Your task to perform on an android device: delete location history Image 0: 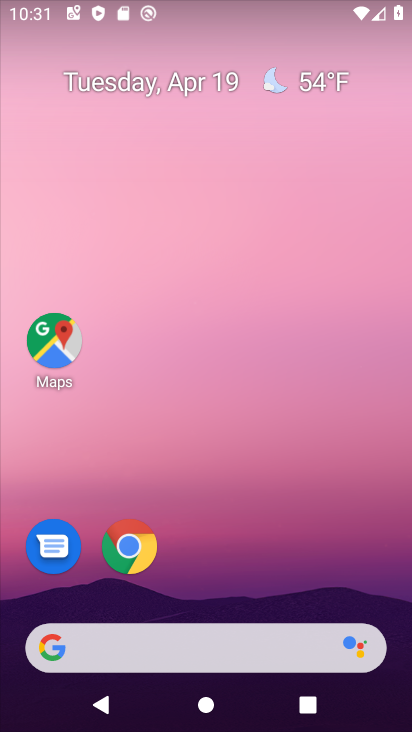
Step 0: click (273, 717)
Your task to perform on an android device: delete location history Image 1: 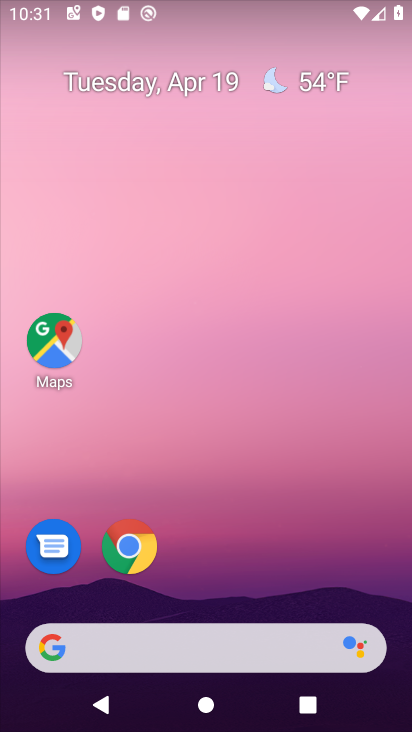
Step 1: click (47, 363)
Your task to perform on an android device: delete location history Image 2: 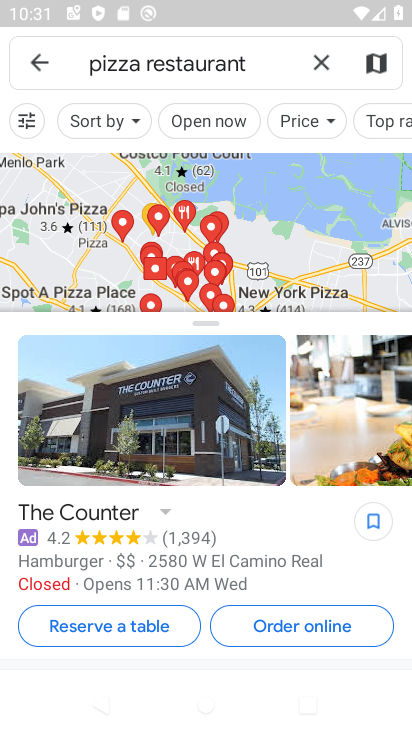
Step 2: click (29, 67)
Your task to perform on an android device: delete location history Image 3: 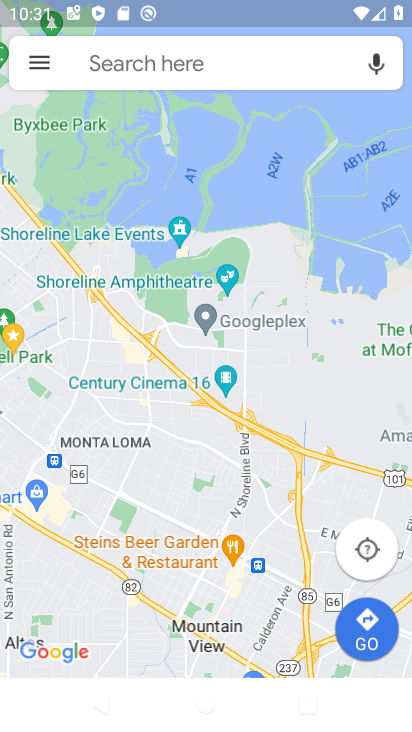
Step 3: click (39, 64)
Your task to perform on an android device: delete location history Image 4: 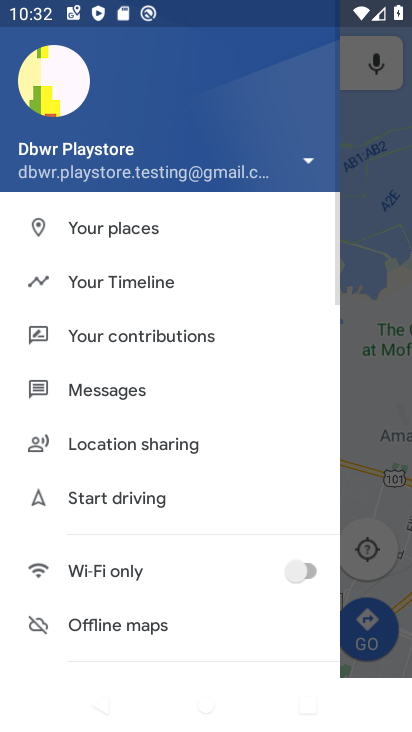
Step 4: click (159, 275)
Your task to perform on an android device: delete location history Image 5: 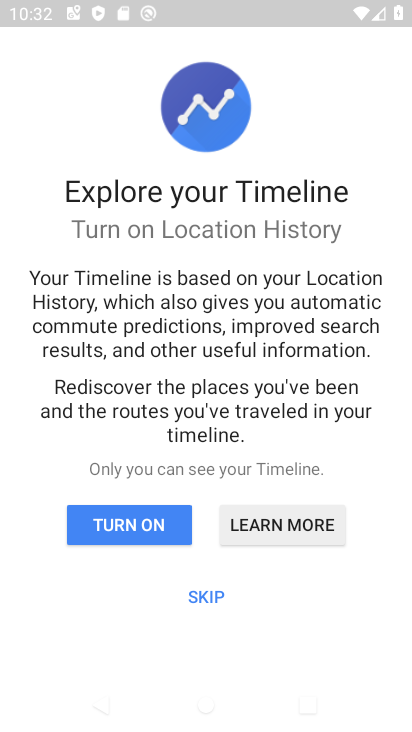
Step 5: click (201, 596)
Your task to perform on an android device: delete location history Image 6: 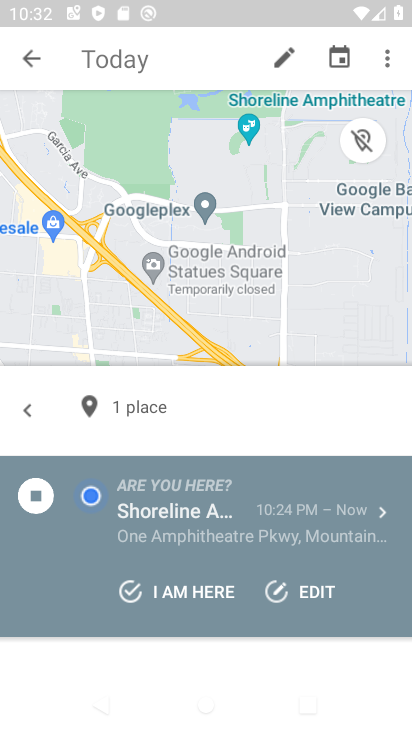
Step 6: click (383, 54)
Your task to perform on an android device: delete location history Image 7: 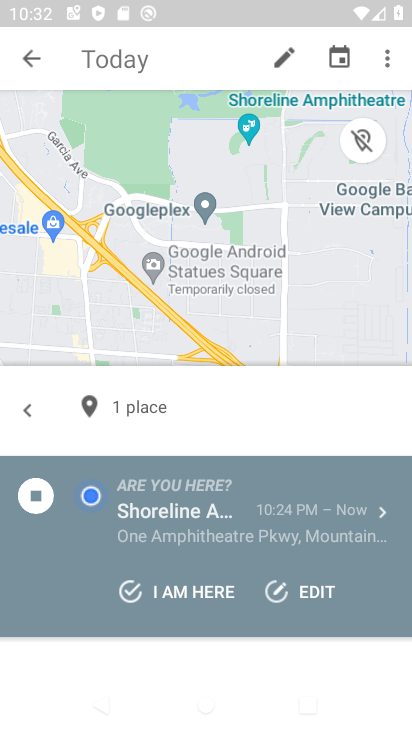
Step 7: click (391, 59)
Your task to perform on an android device: delete location history Image 8: 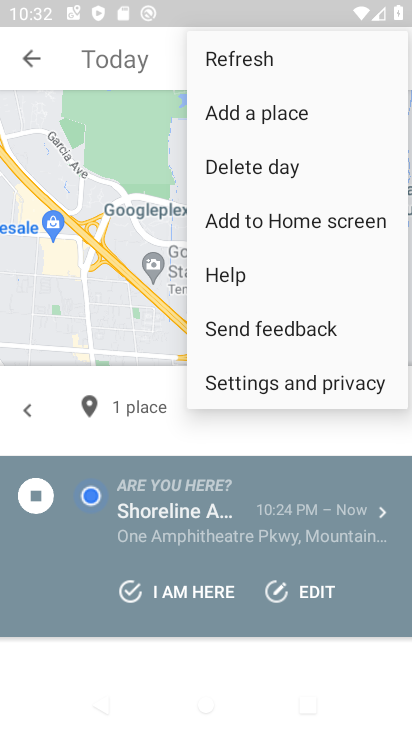
Step 8: click (264, 379)
Your task to perform on an android device: delete location history Image 9: 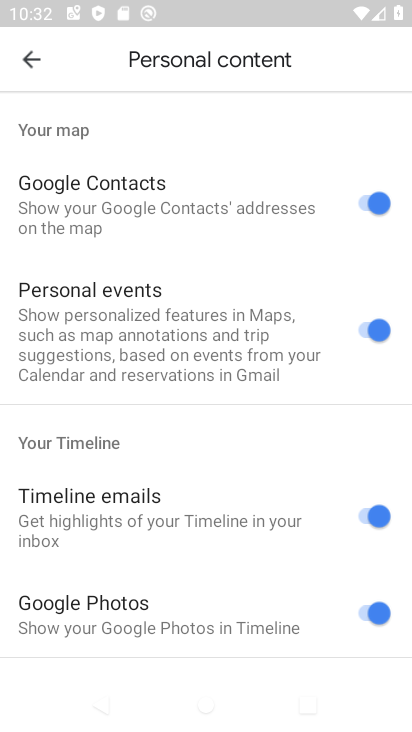
Step 9: drag from (248, 589) to (299, 73)
Your task to perform on an android device: delete location history Image 10: 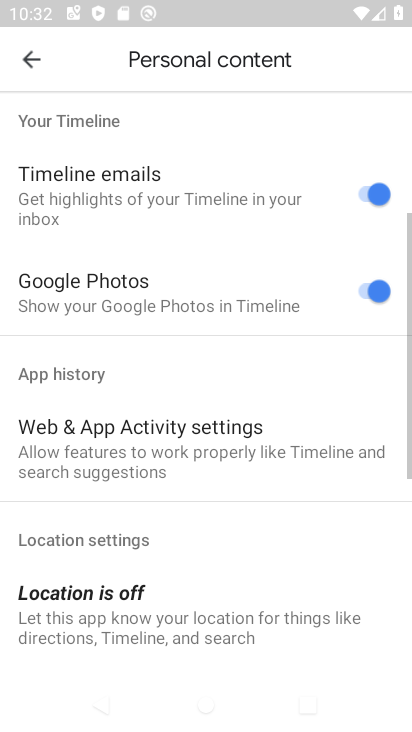
Step 10: drag from (248, 636) to (341, 13)
Your task to perform on an android device: delete location history Image 11: 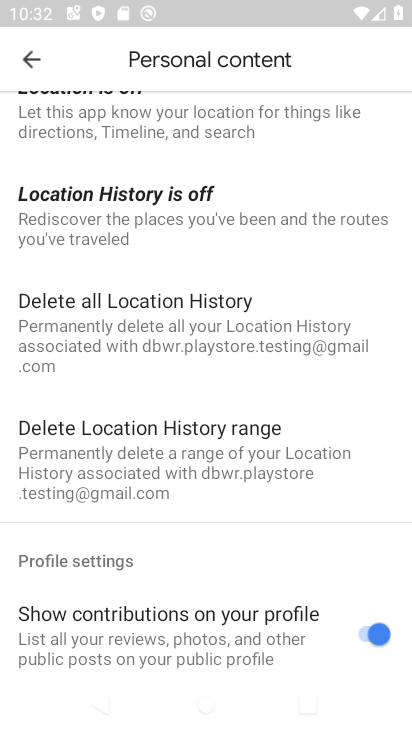
Step 11: click (254, 348)
Your task to perform on an android device: delete location history Image 12: 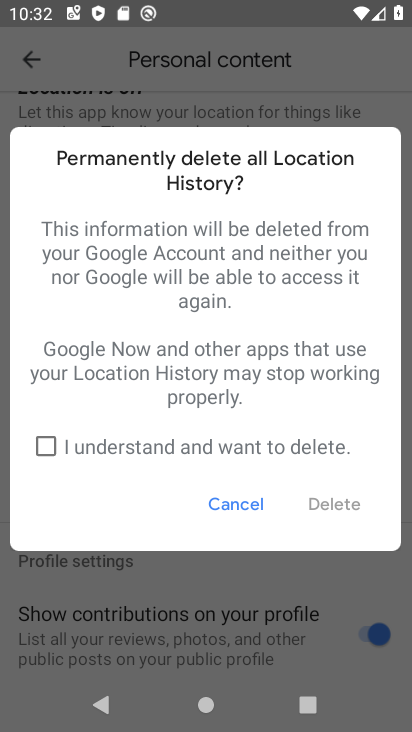
Step 12: click (49, 447)
Your task to perform on an android device: delete location history Image 13: 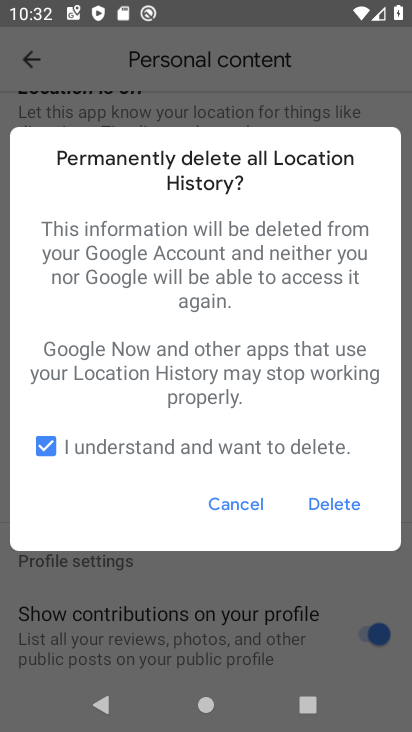
Step 13: click (328, 504)
Your task to perform on an android device: delete location history Image 14: 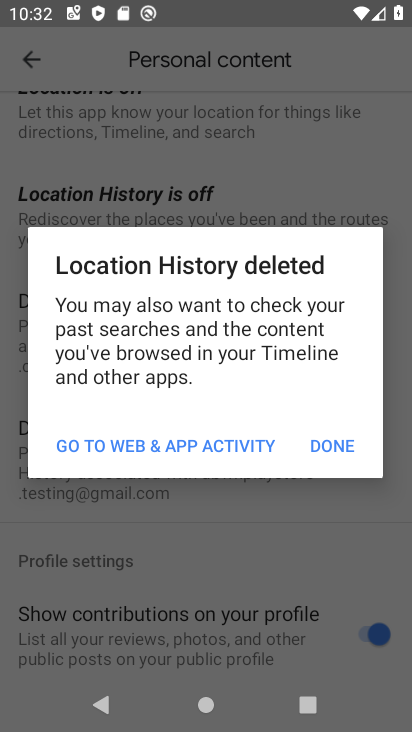
Step 14: click (328, 446)
Your task to perform on an android device: delete location history Image 15: 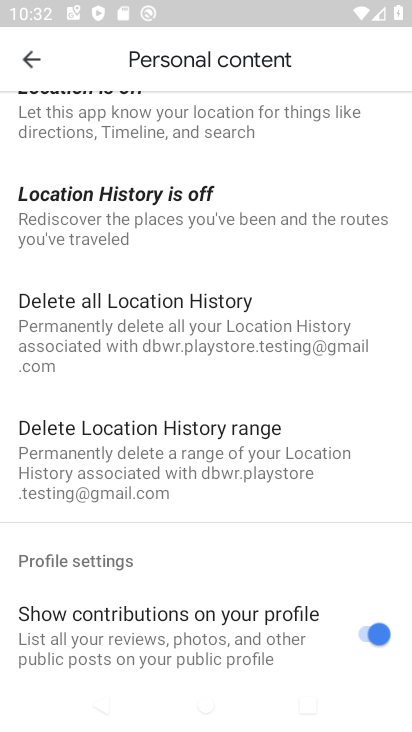
Step 15: task complete